Your task to perform on an android device: open chrome privacy settings Image 0: 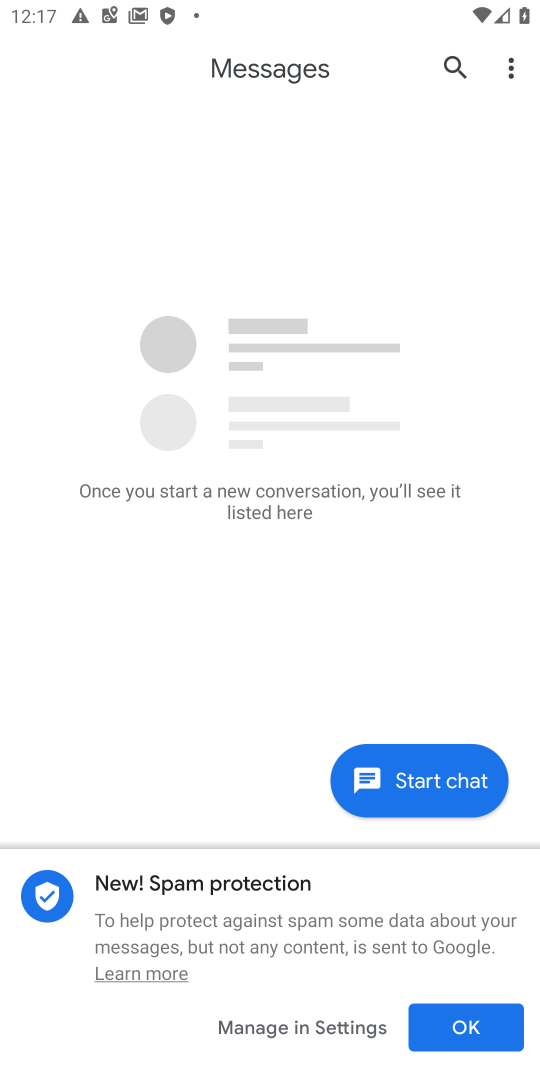
Step 0: press back button
Your task to perform on an android device: open chrome privacy settings Image 1: 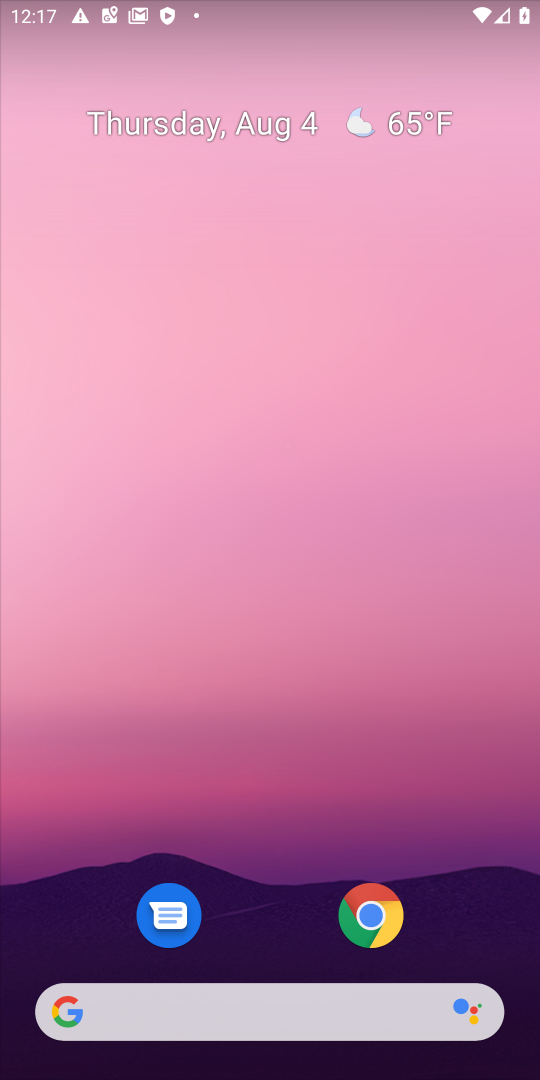
Step 1: click (357, 934)
Your task to perform on an android device: open chrome privacy settings Image 2: 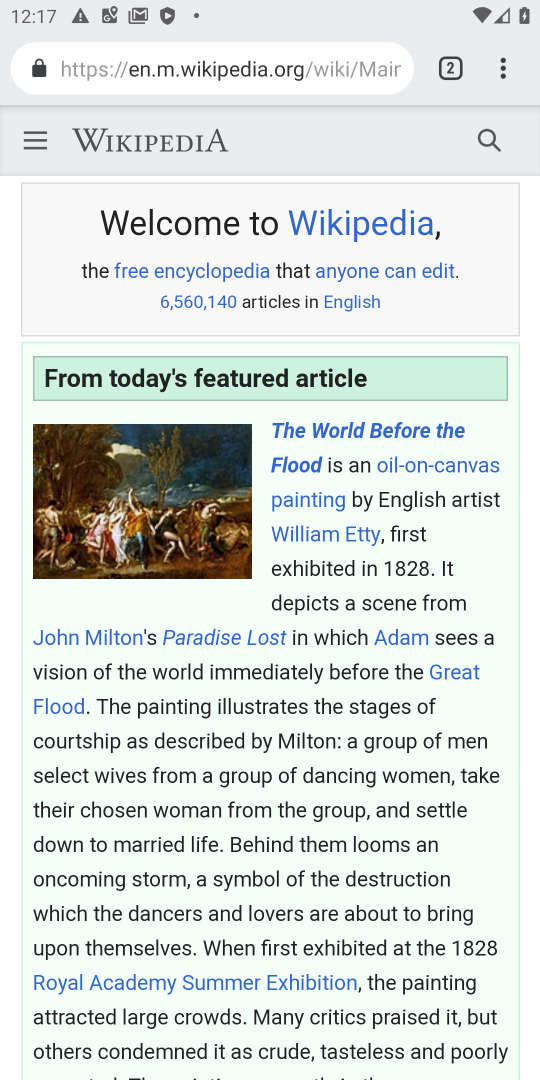
Step 2: click (507, 74)
Your task to perform on an android device: open chrome privacy settings Image 3: 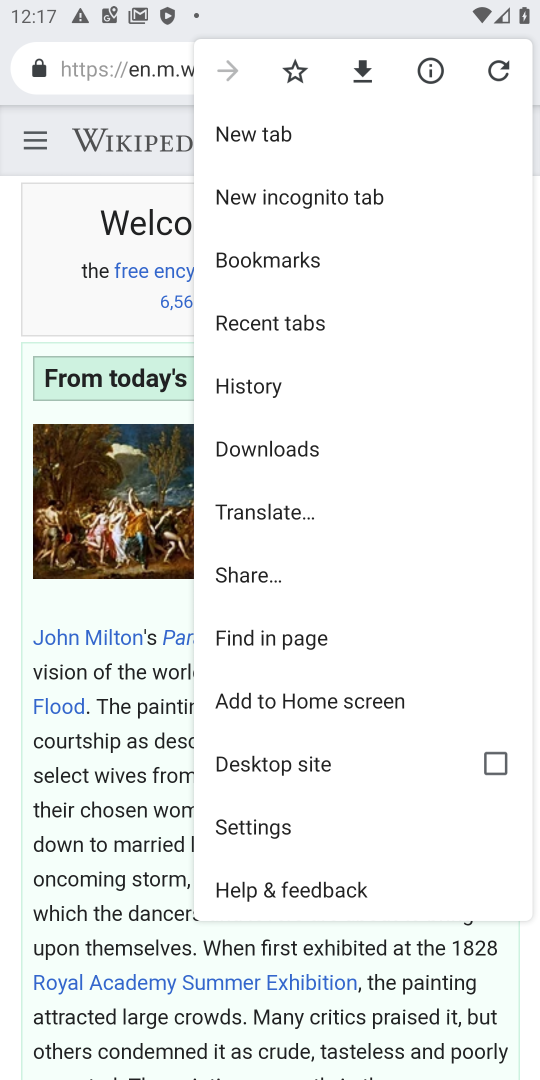
Step 3: click (279, 830)
Your task to perform on an android device: open chrome privacy settings Image 4: 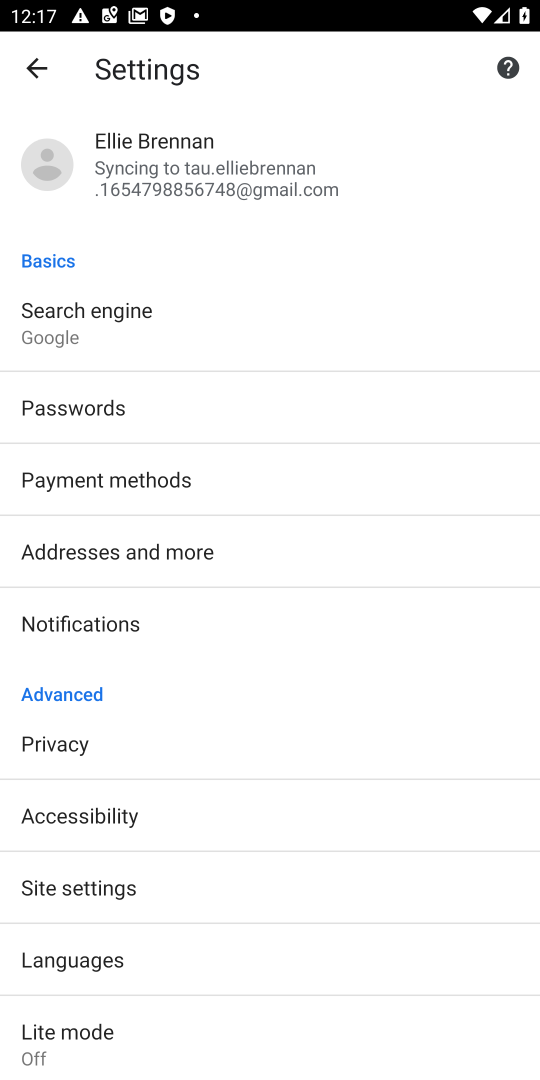
Step 4: click (51, 733)
Your task to perform on an android device: open chrome privacy settings Image 5: 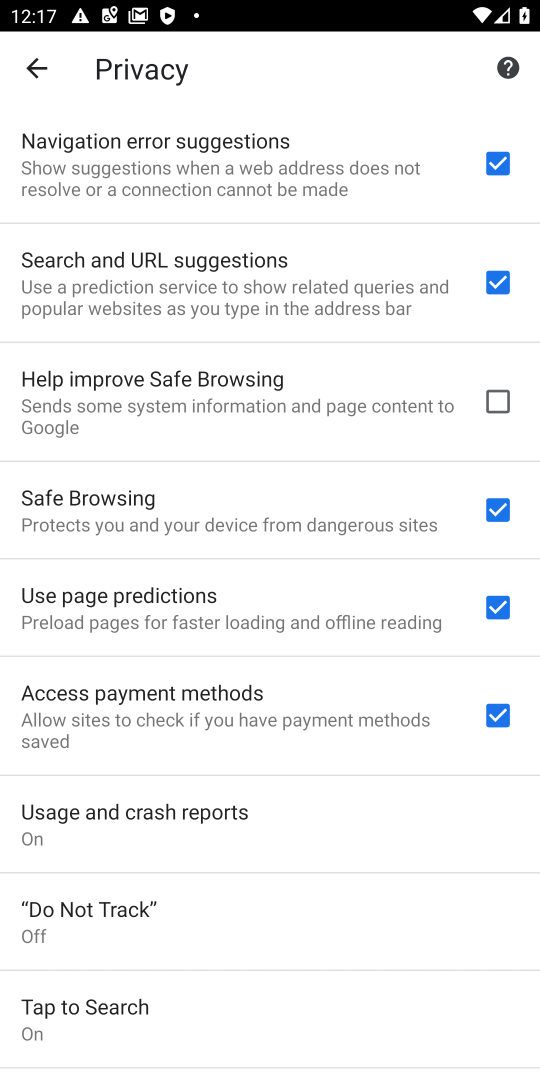
Step 5: task complete